Your task to perform on an android device: Open Wikipedia Image 0: 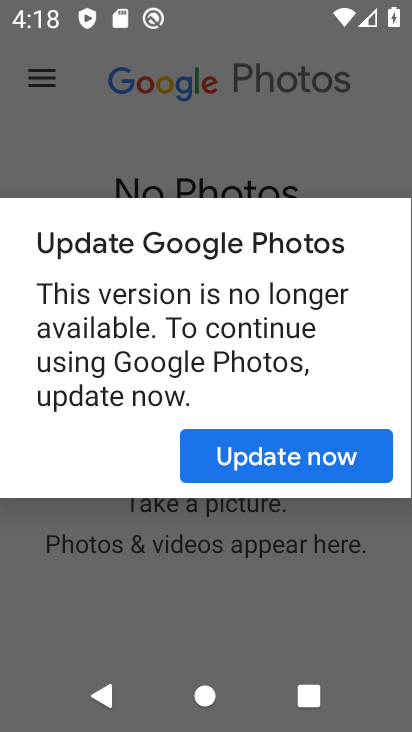
Step 0: press home button
Your task to perform on an android device: Open Wikipedia Image 1: 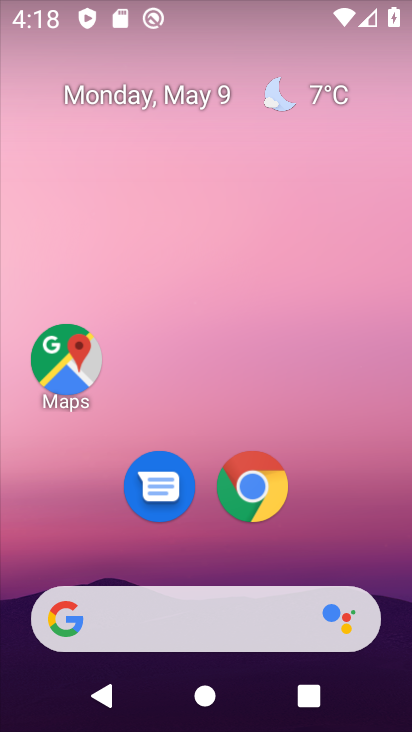
Step 1: click (238, 641)
Your task to perform on an android device: Open Wikipedia Image 2: 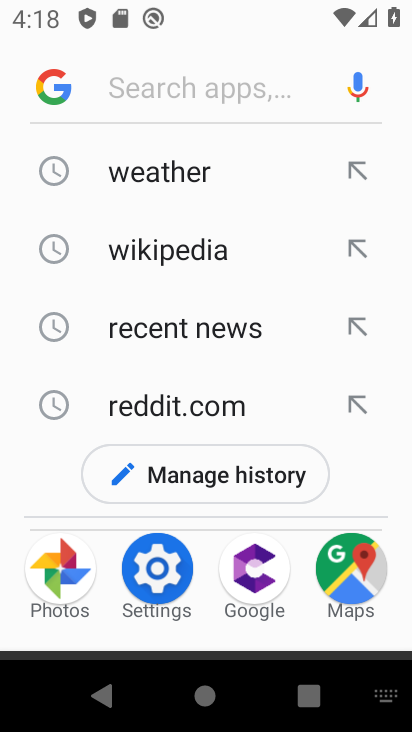
Step 2: click (193, 250)
Your task to perform on an android device: Open Wikipedia Image 3: 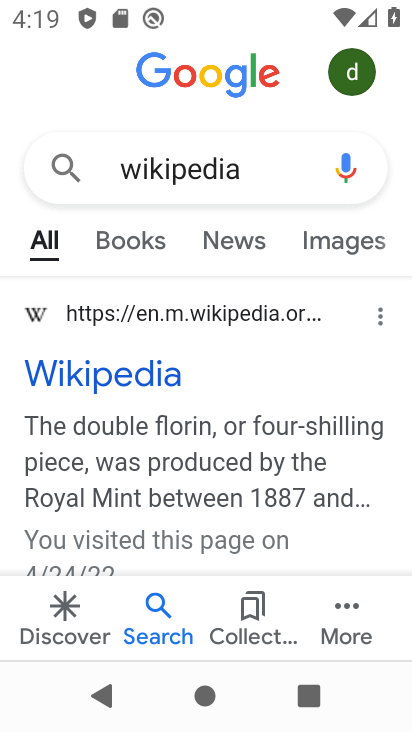
Step 3: task complete